Your task to perform on an android device: make emails show in primary in the gmail app Image 0: 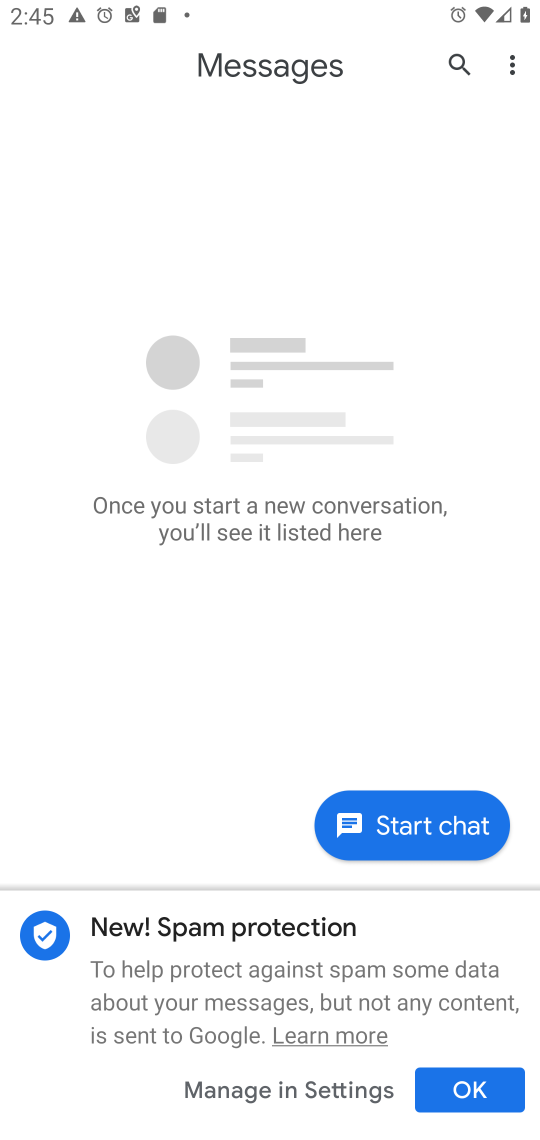
Step 0: press home button
Your task to perform on an android device: make emails show in primary in the gmail app Image 1: 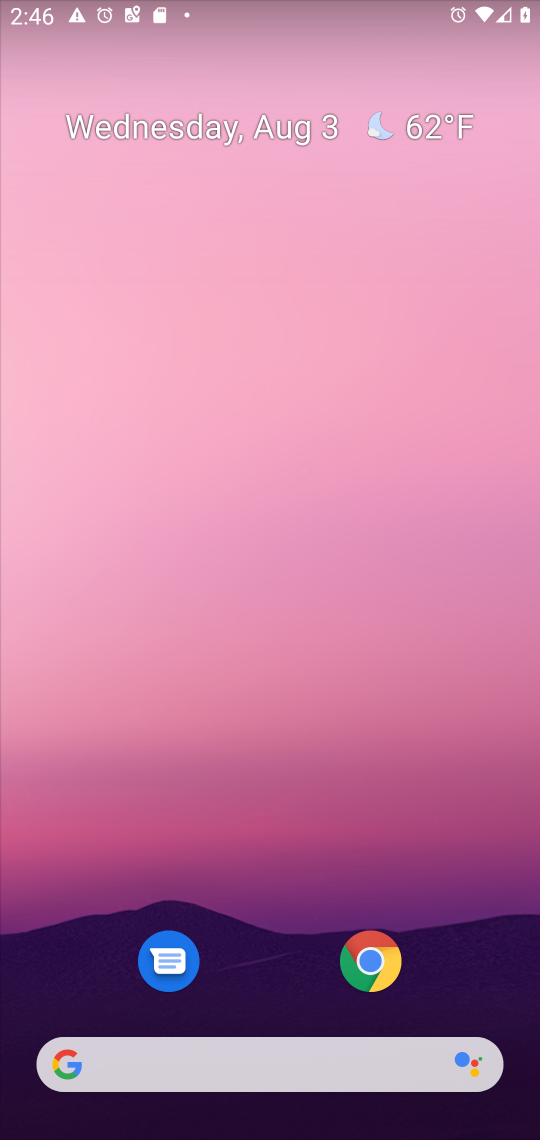
Step 1: drag from (247, 972) to (322, 122)
Your task to perform on an android device: make emails show in primary in the gmail app Image 2: 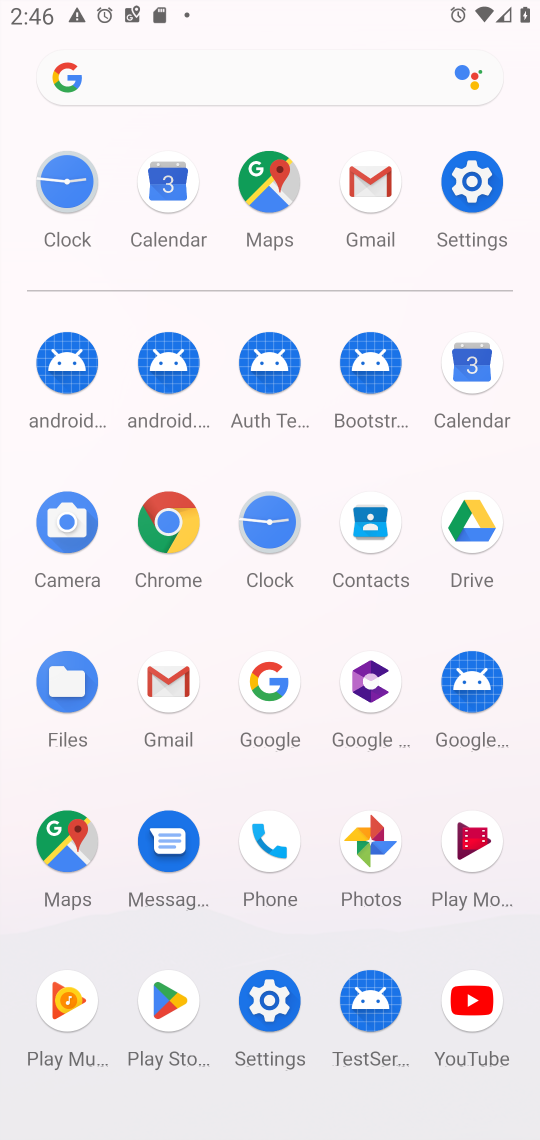
Step 2: click (368, 198)
Your task to perform on an android device: make emails show in primary in the gmail app Image 3: 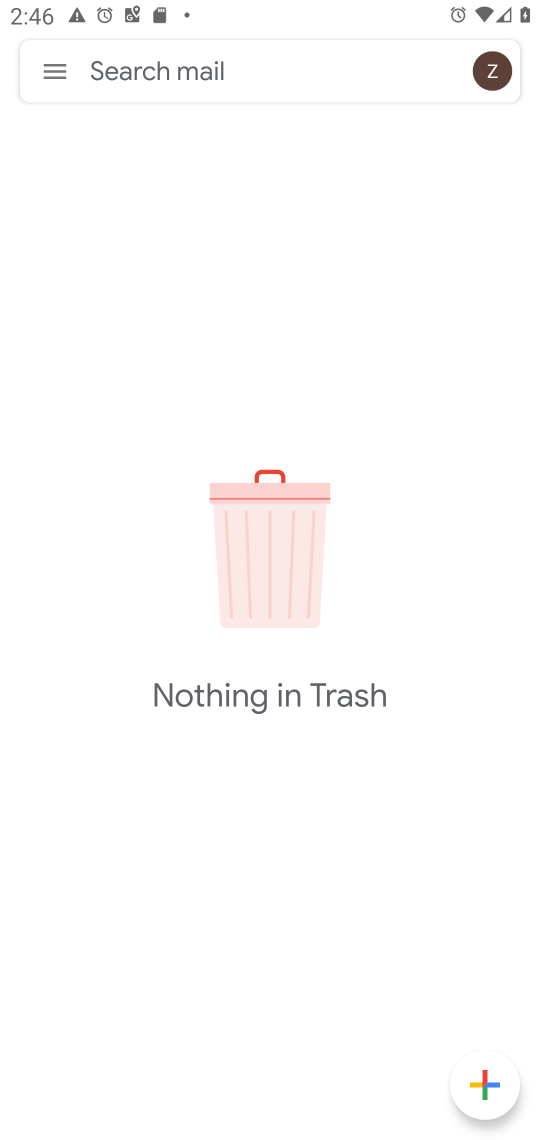
Step 3: click (53, 74)
Your task to perform on an android device: make emails show in primary in the gmail app Image 4: 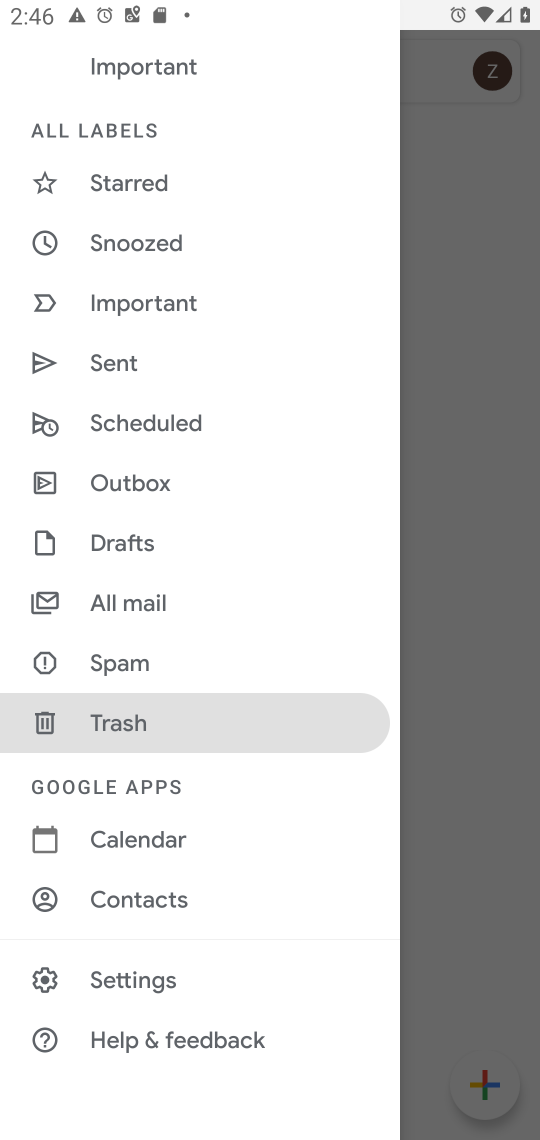
Step 4: click (96, 977)
Your task to perform on an android device: make emails show in primary in the gmail app Image 5: 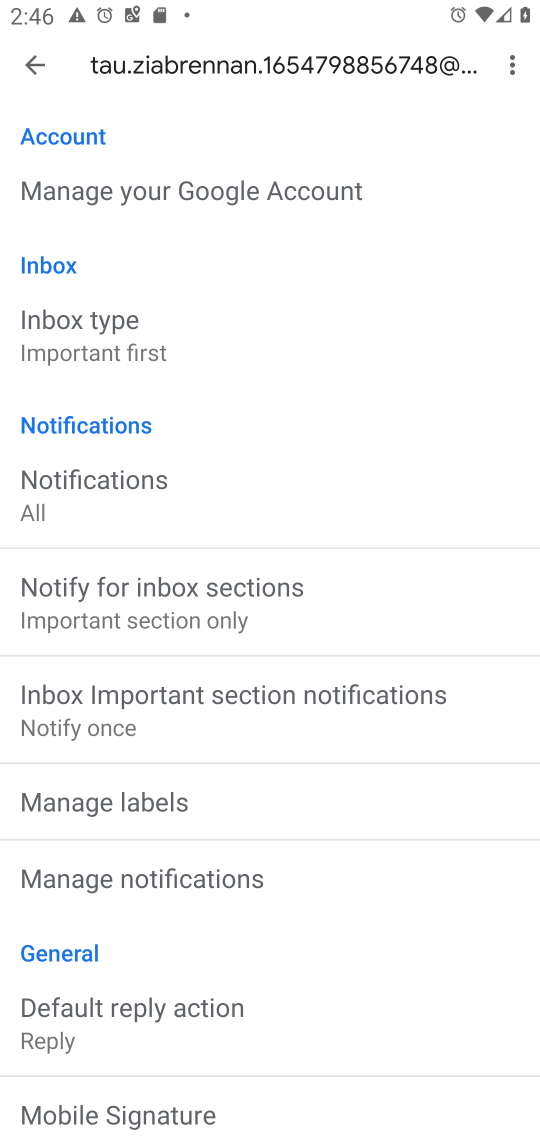
Step 5: task complete